Your task to perform on an android device: Open Wikipedia Image 0: 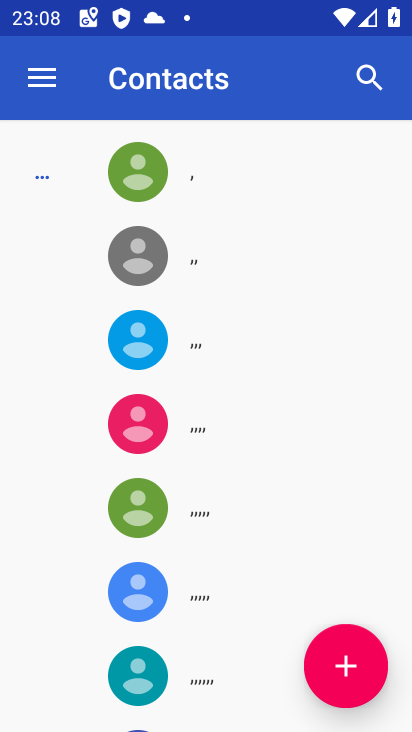
Step 0: press home button
Your task to perform on an android device: Open Wikipedia Image 1: 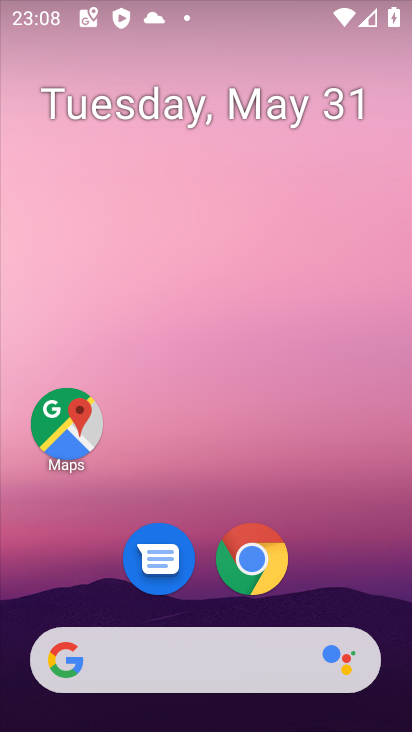
Step 1: drag from (333, 583) to (312, 43)
Your task to perform on an android device: Open Wikipedia Image 2: 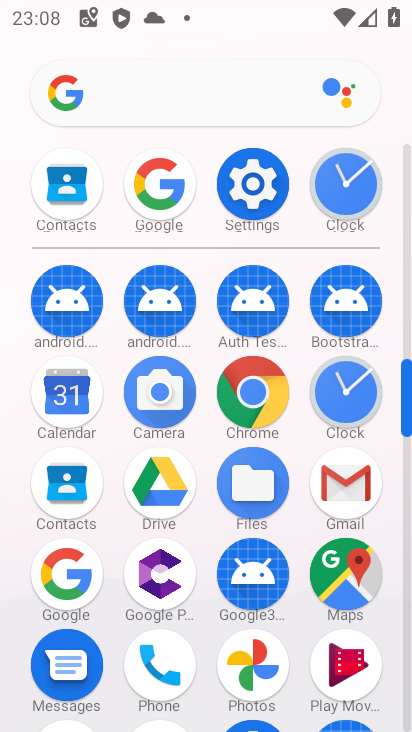
Step 2: click (255, 393)
Your task to perform on an android device: Open Wikipedia Image 3: 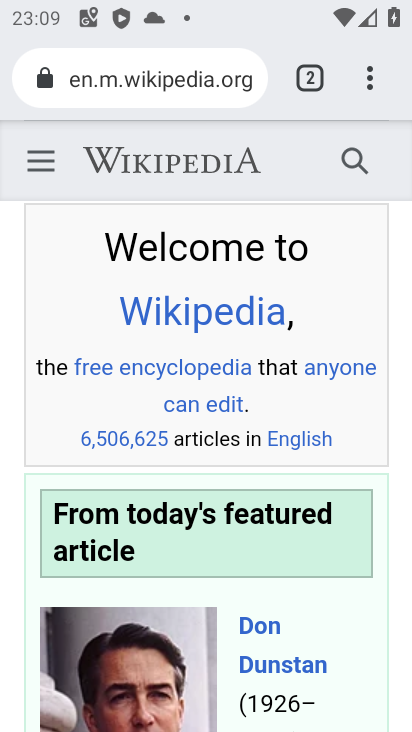
Step 3: task complete